Your task to perform on an android device: Open calendar and show me the second week of next month Image 0: 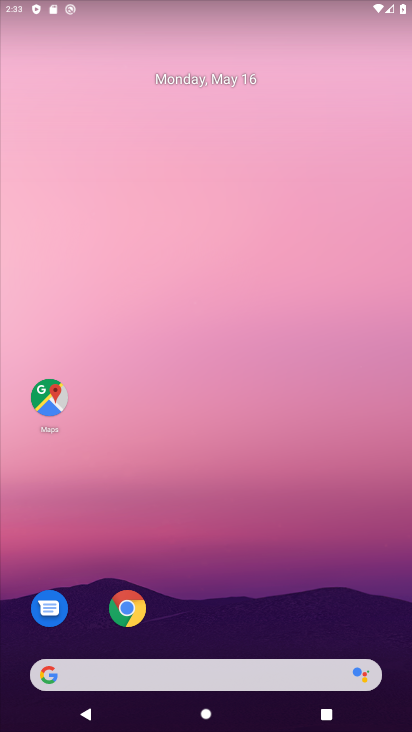
Step 0: drag from (261, 596) to (236, 48)
Your task to perform on an android device: Open calendar and show me the second week of next month Image 1: 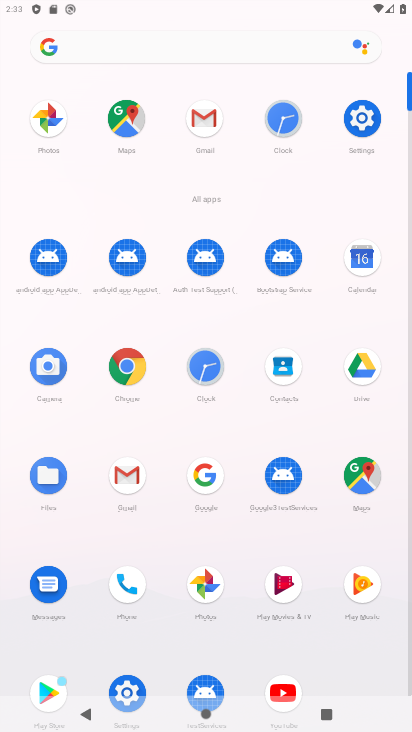
Step 1: click (364, 258)
Your task to perform on an android device: Open calendar and show me the second week of next month Image 2: 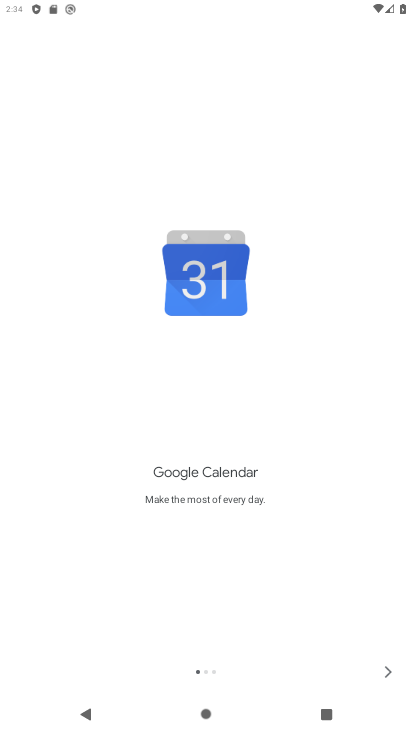
Step 2: click (389, 671)
Your task to perform on an android device: Open calendar and show me the second week of next month Image 3: 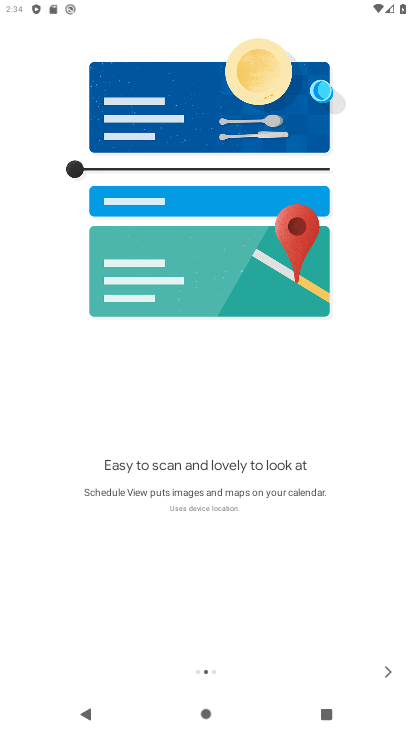
Step 3: click (389, 671)
Your task to perform on an android device: Open calendar and show me the second week of next month Image 4: 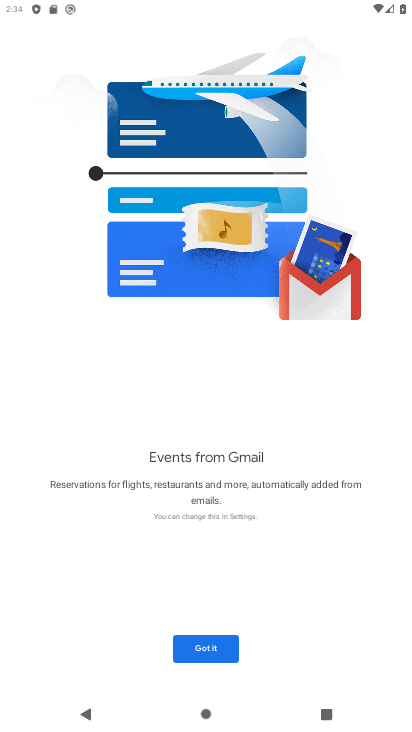
Step 4: click (214, 649)
Your task to perform on an android device: Open calendar and show me the second week of next month Image 5: 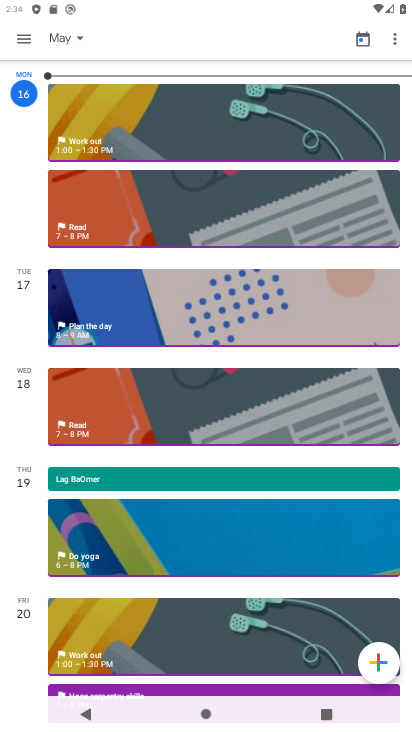
Step 5: click (67, 40)
Your task to perform on an android device: Open calendar and show me the second week of next month Image 6: 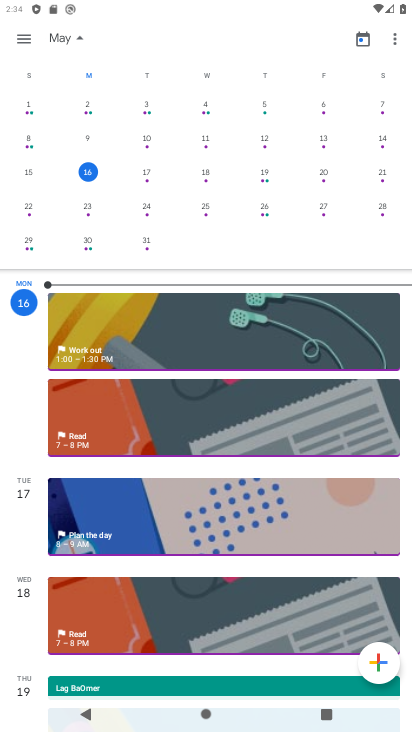
Step 6: drag from (369, 175) to (2, 157)
Your task to perform on an android device: Open calendar and show me the second week of next month Image 7: 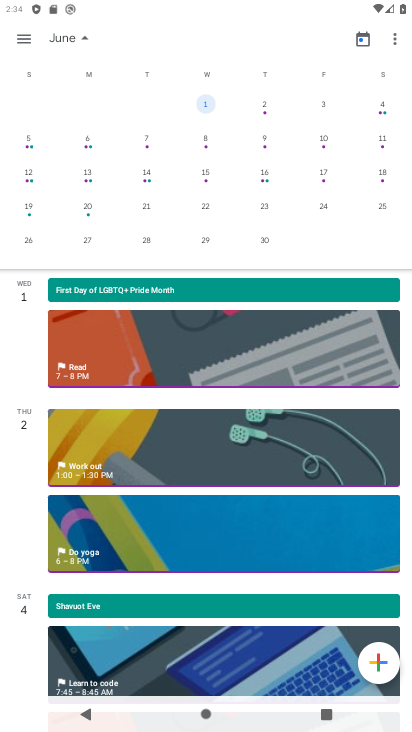
Step 7: click (94, 169)
Your task to perform on an android device: Open calendar and show me the second week of next month Image 8: 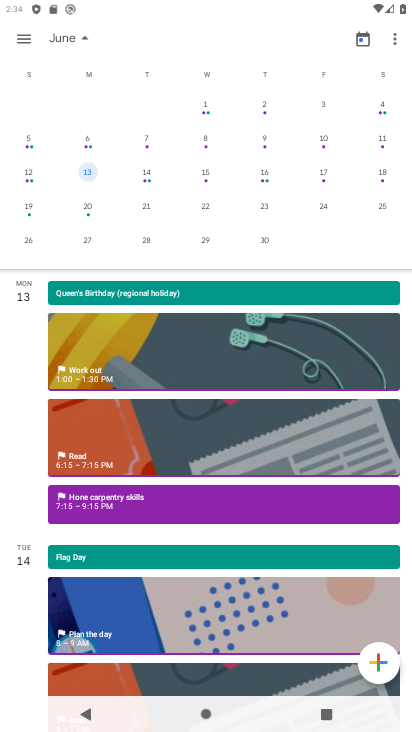
Step 8: click (29, 38)
Your task to perform on an android device: Open calendar and show me the second week of next month Image 9: 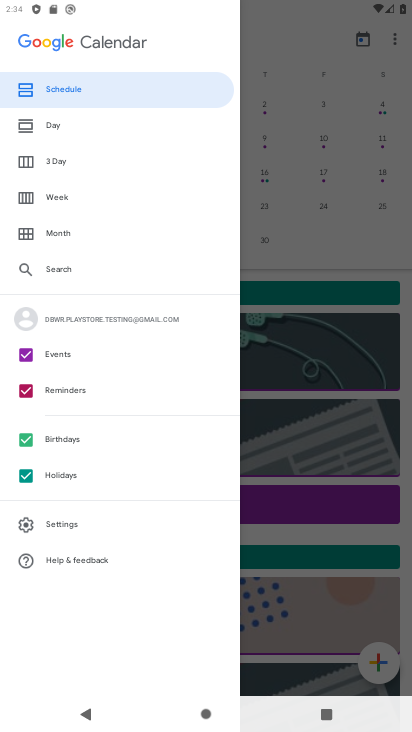
Step 9: click (66, 193)
Your task to perform on an android device: Open calendar and show me the second week of next month Image 10: 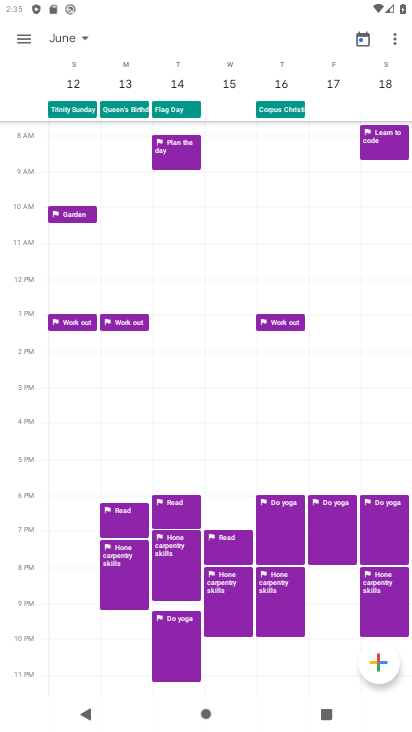
Step 10: task complete